Your task to perform on an android device: see creations saved in the google photos Image 0: 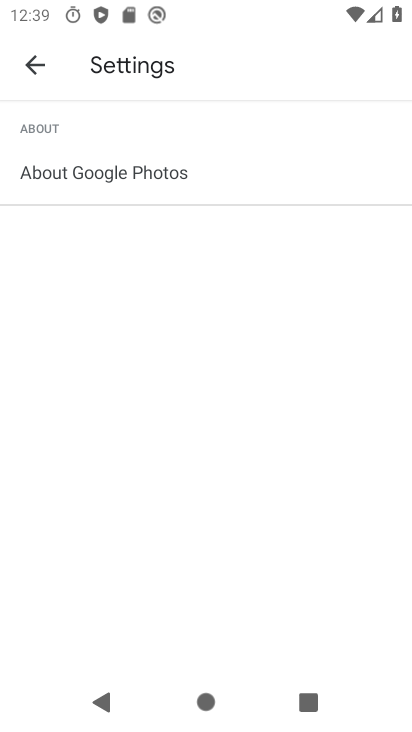
Step 0: click (37, 49)
Your task to perform on an android device: see creations saved in the google photos Image 1: 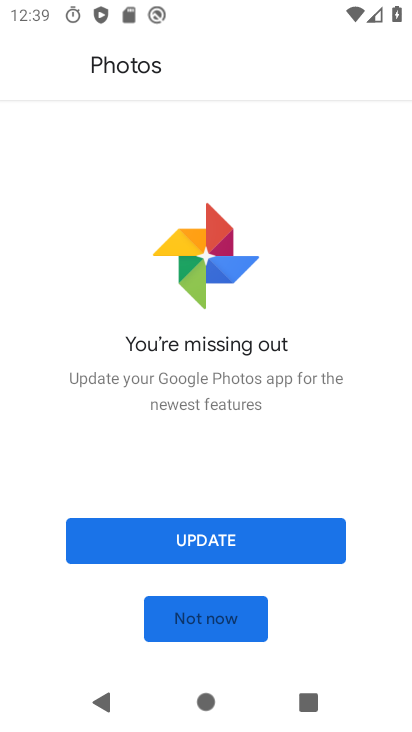
Step 1: click (210, 535)
Your task to perform on an android device: see creations saved in the google photos Image 2: 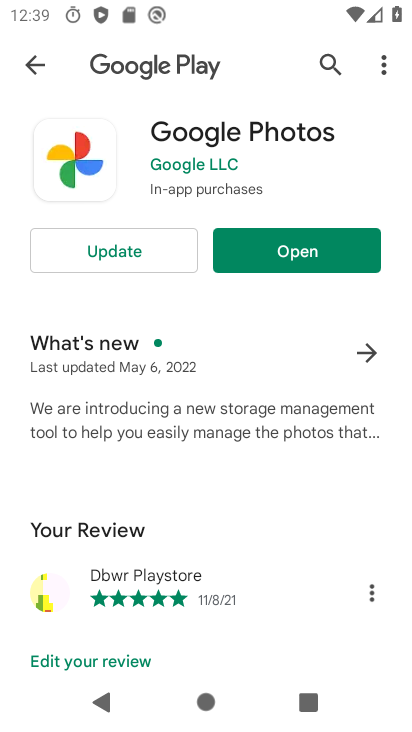
Step 2: click (102, 247)
Your task to perform on an android device: see creations saved in the google photos Image 3: 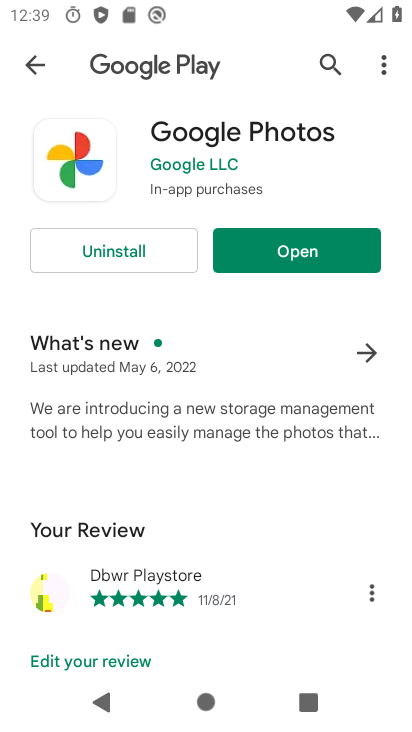
Step 3: click (272, 254)
Your task to perform on an android device: see creations saved in the google photos Image 4: 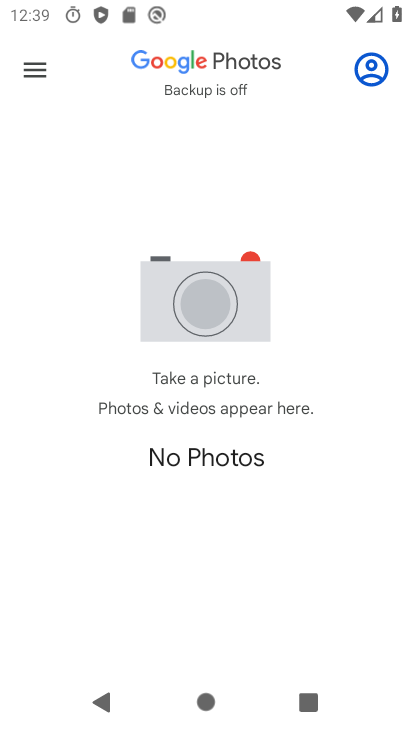
Step 4: click (26, 67)
Your task to perform on an android device: see creations saved in the google photos Image 5: 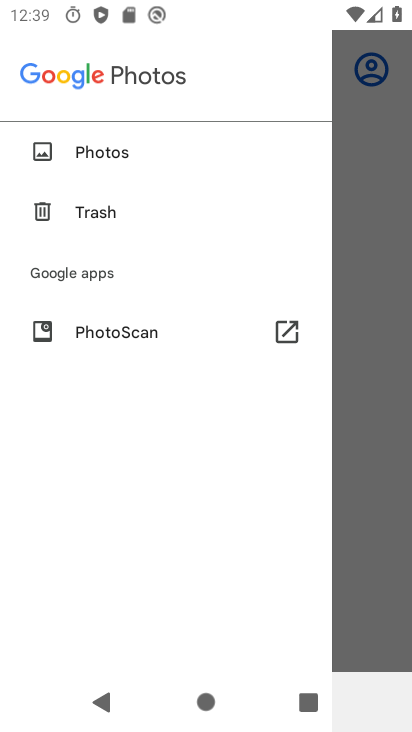
Step 5: click (367, 187)
Your task to perform on an android device: see creations saved in the google photos Image 6: 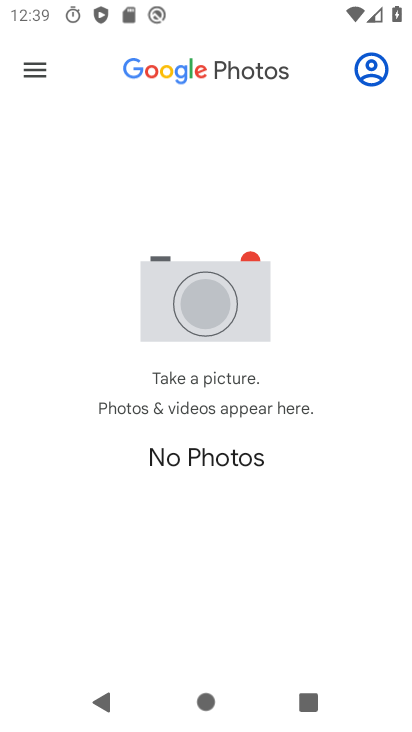
Step 6: click (369, 60)
Your task to perform on an android device: see creations saved in the google photos Image 7: 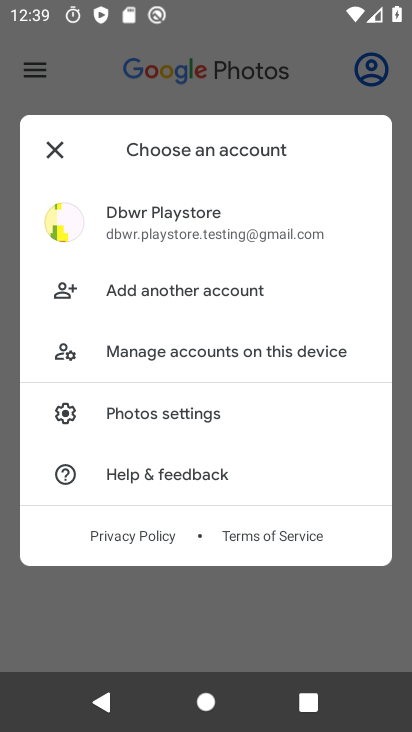
Step 7: click (225, 627)
Your task to perform on an android device: see creations saved in the google photos Image 8: 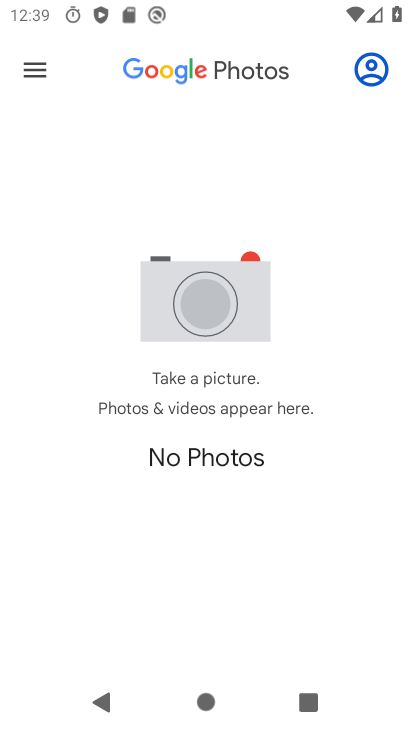
Step 8: task complete